Your task to perform on an android device: manage bookmarks in the chrome app Image 0: 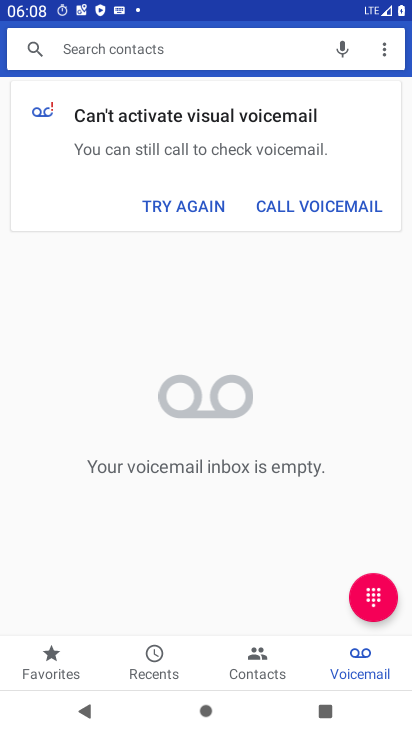
Step 0: press home button
Your task to perform on an android device: manage bookmarks in the chrome app Image 1: 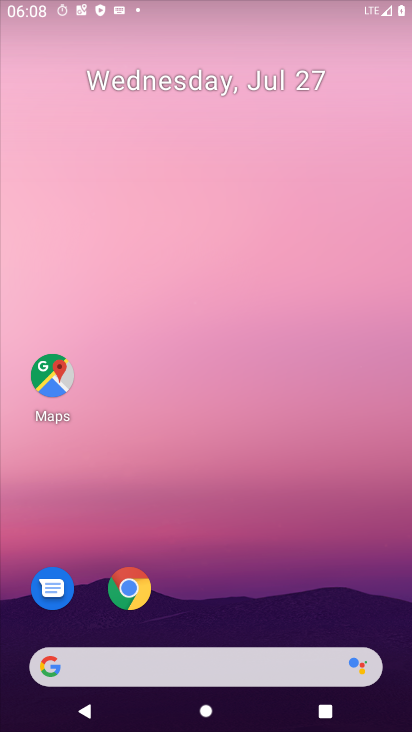
Step 1: drag from (295, 665) to (188, 49)
Your task to perform on an android device: manage bookmarks in the chrome app Image 2: 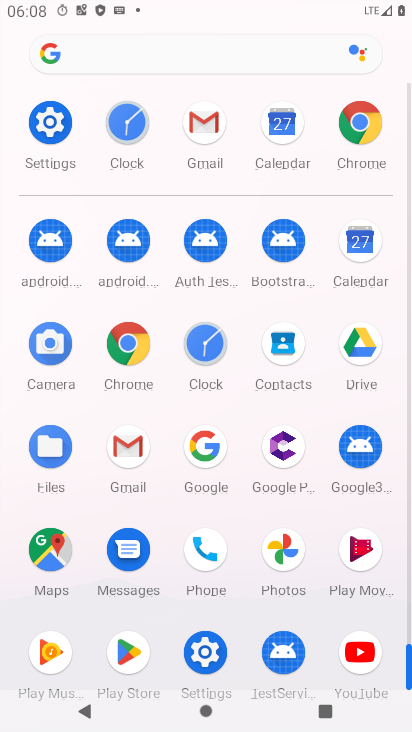
Step 2: click (131, 340)
Your task to perform on an android device: manage bookmarks in the chrome app Image 3: 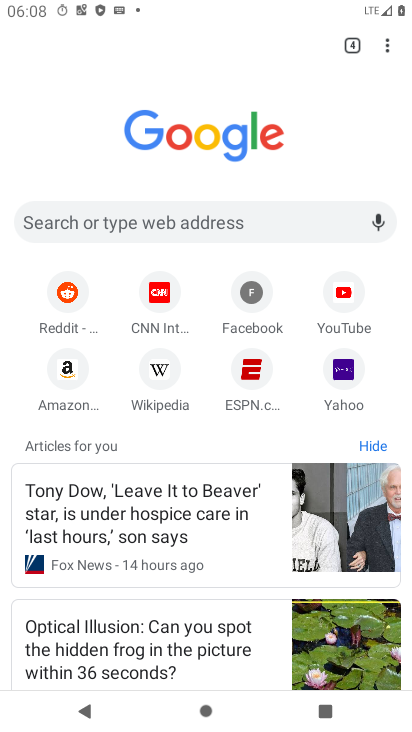
Step 3: click (381, 44)
Your task to perform on an android device: manage bookmarks in the chrome app Image 4: 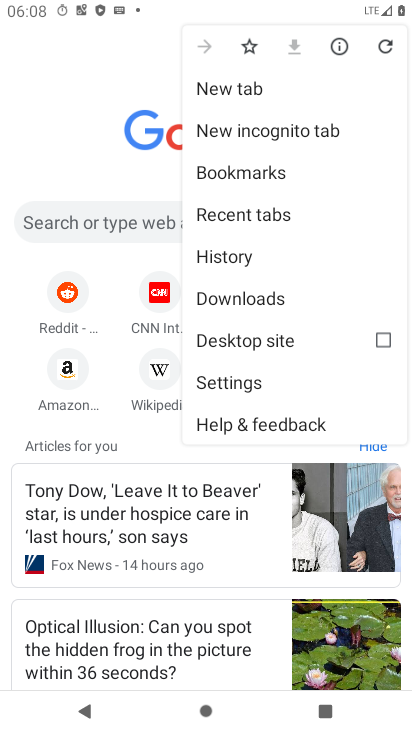
Step 4: click (279, 175)
Your task to perform on an android device: manage bookmarks in the chrome app Image 5: 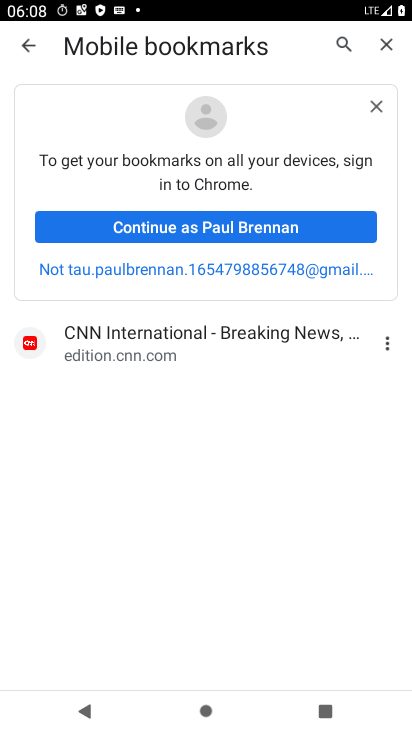
Step 5: task complete